Your task to perform on an android device: Open Android settings Image 0: 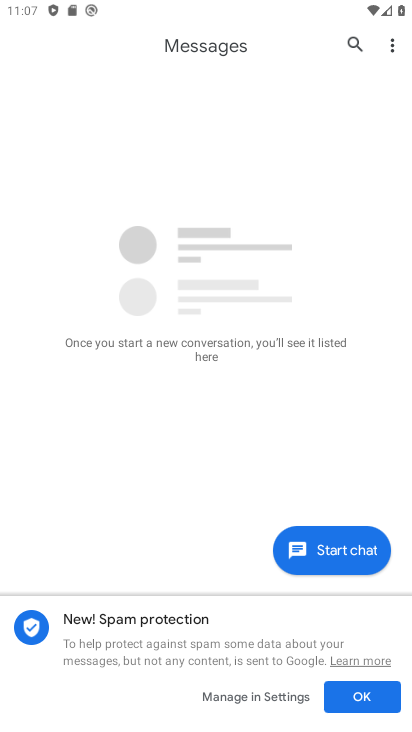
Step 0: press home button
Your task to perform on an android device: Open Android settings Image 1: 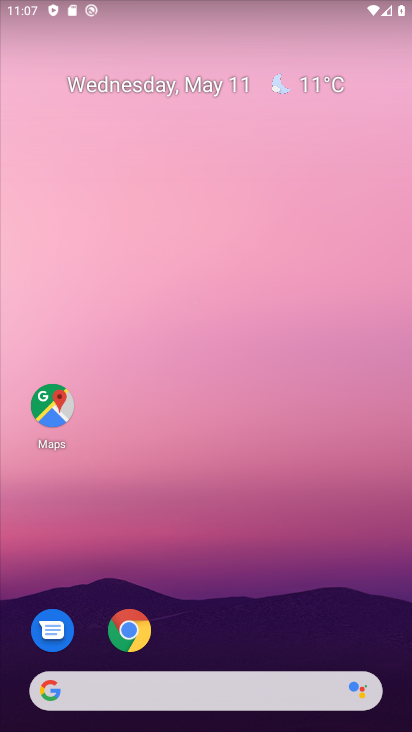
Step 1: drag from (165, 661) to (220, 336)
Your task to perform on an android device: Open Android settings Image 2: 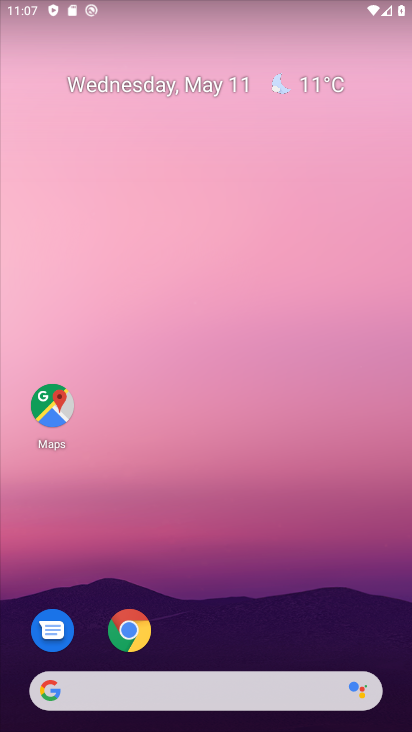
Step 2: drag from (199, 652) to (223, 222)
Your task to perform on an android device: Open Android settings Image 3: 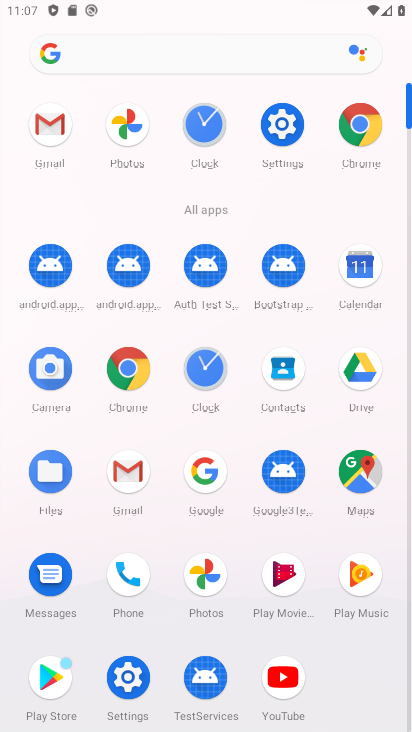
Step 3: click (122, 677)
Your task to perform on an android device: Open Android settings Image 4: 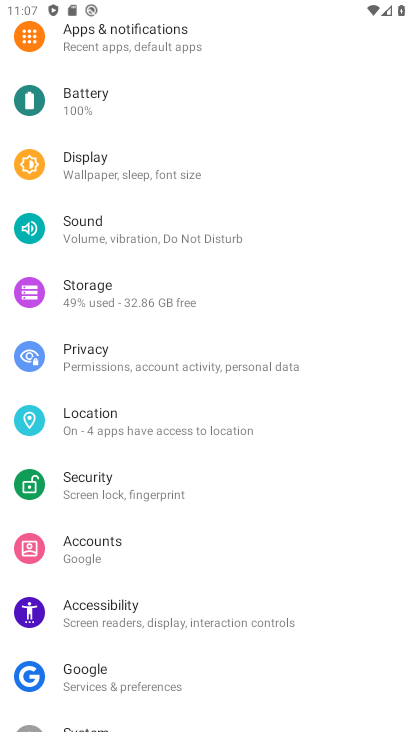
Step 4: drag from (134, 674) to (197, 222)
Your task to perform on an android device: Open Android settings Image 5: 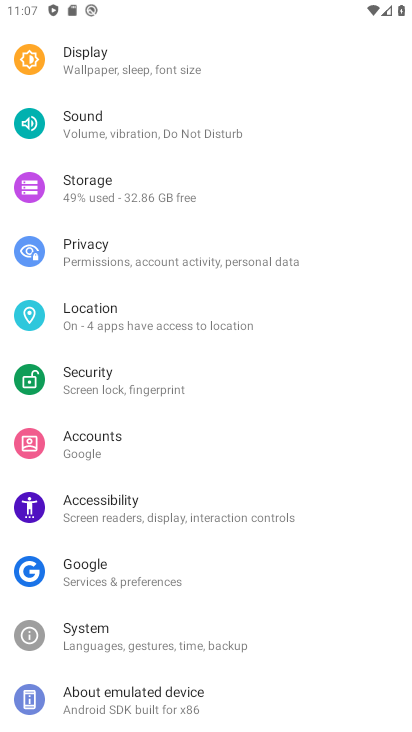
Step 5: click (167, 697)
Your task to perform on an android device: Open Android settings Image 6: 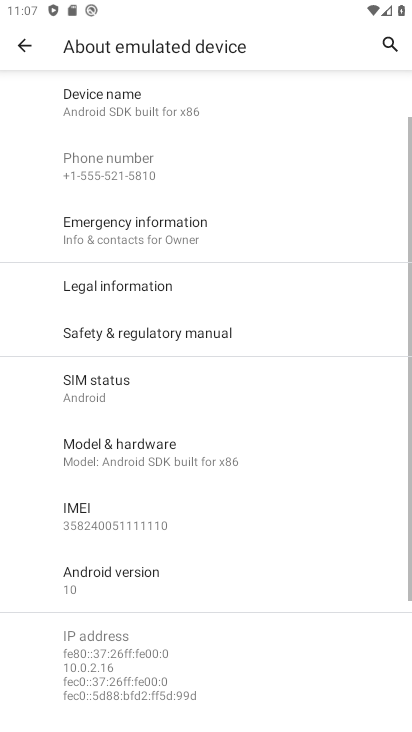
Step 6: click (96, 573)
Your task to perform on an android device: Open Android settings Image 7: 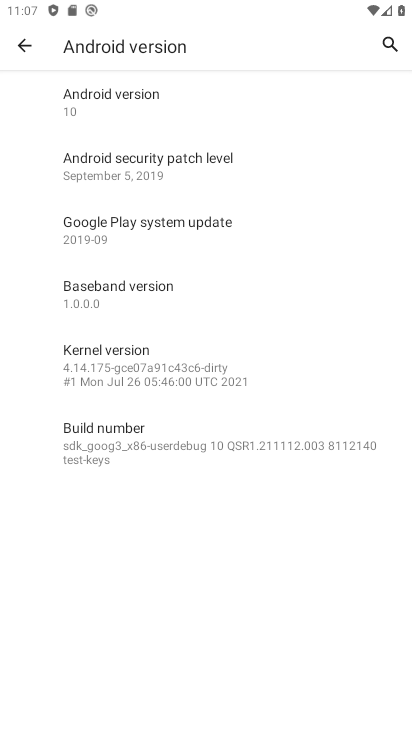
Step 7: task complete